Your task to perform on an android device: turn off data saver in the chrome app Image 0: 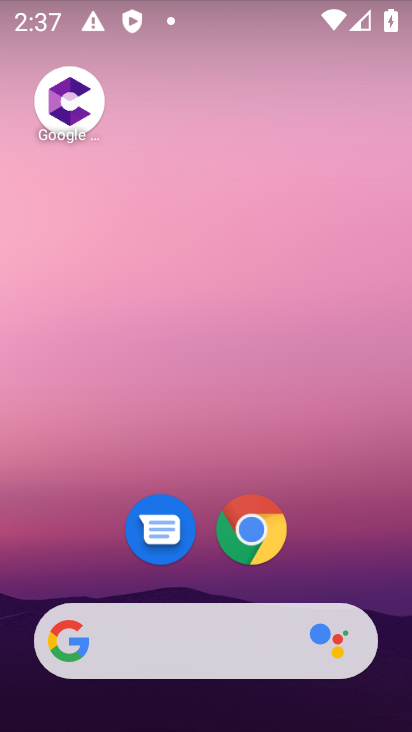
Step 0: click (260, 532)
Your task to perform on an android device: turn off data saver in the chrome app Image 1: 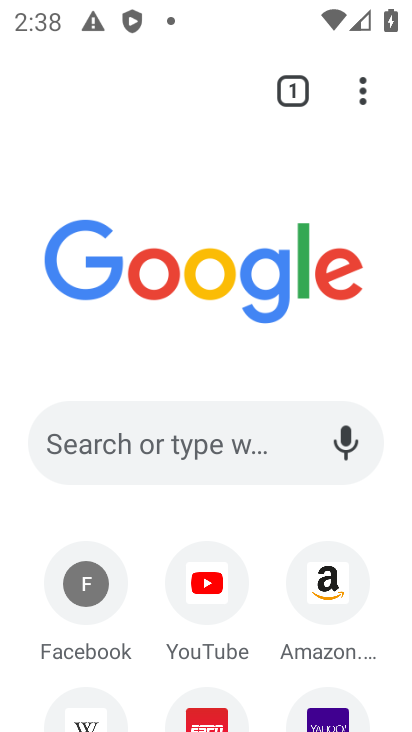
Step 1: drag from (364, 91) to (205, 564)
Your task to perform on an android device: turn off data saver in the chrome app Image 2: 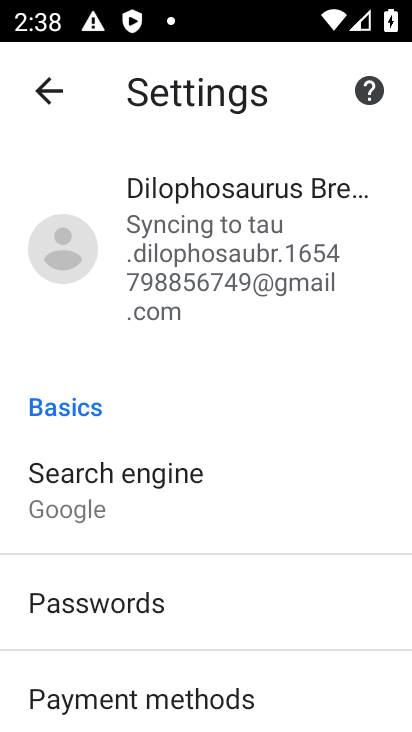
Step 2: drag from (361, 686) to (358, 133)
Your task to perform on an android device: turn off data saver in the chrome app Image 3: 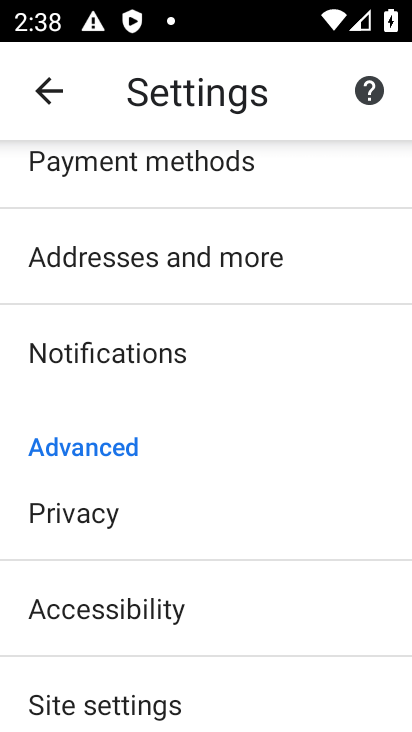
Step 3: drag from (272, 703) to (204, 314)
Your task to perform on an android device: turn off data saver in the chrome app Image 4: 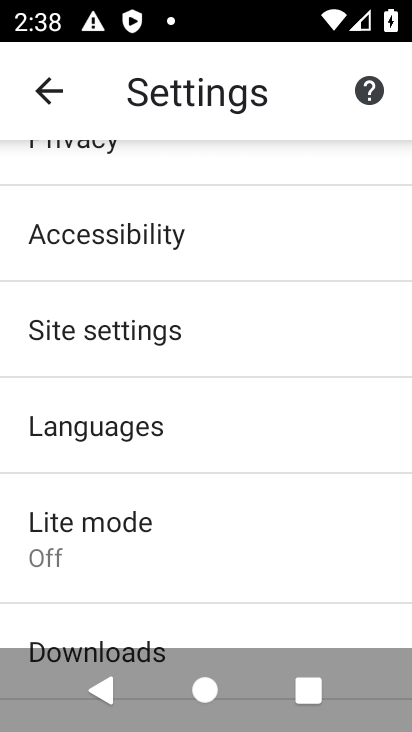
Step 4: click (56, 530)
Your task to perform on an android device: turn off data saver in the chrome app Image 5: 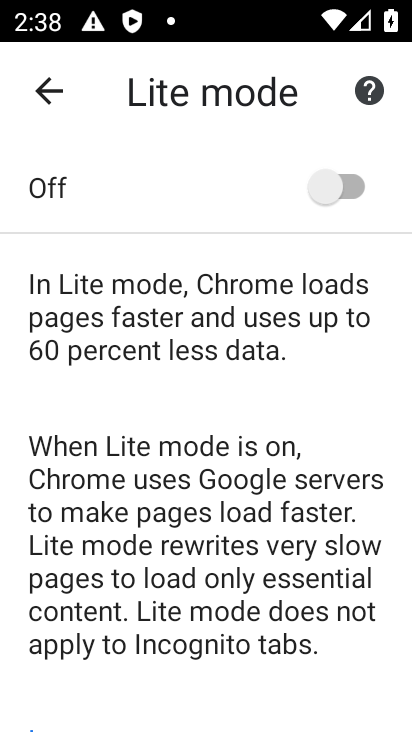
Step 5: task complete